Your task to perform on an android device: turn on airplane mode Image 0: 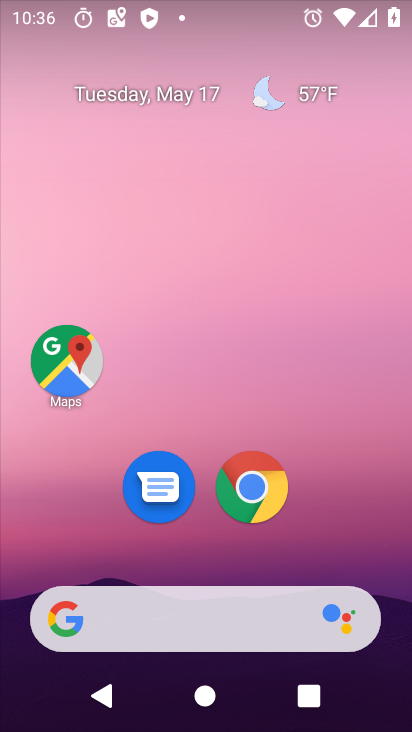
Step 0: drag from (226, 726) to (226, 287)
Your task to perform on an android device: turn on airplane mode Image 1: 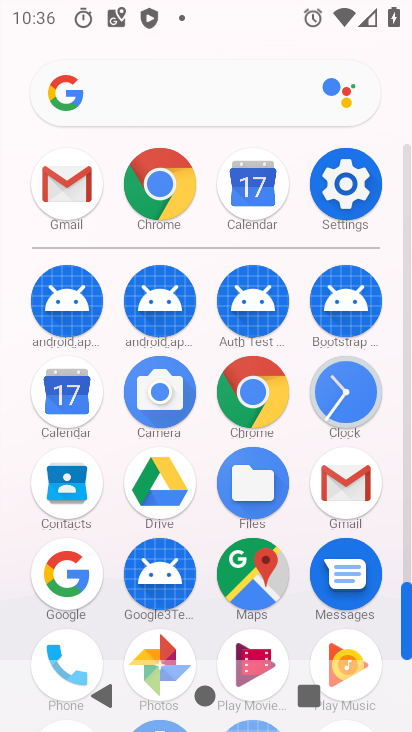
Step 1: click (348, 193)
Your task to perform on an android device: turn on airplane mode Image 2: 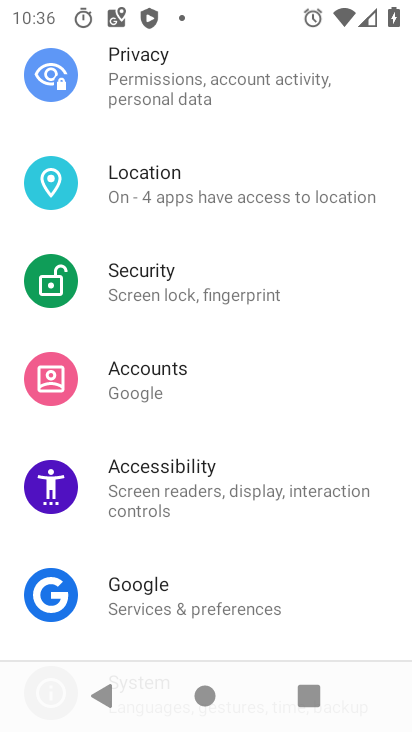
Step 2: drag from (251, 152) to (249, 537)
Your task to perform on an android device: turn on airplane mode Image 3: 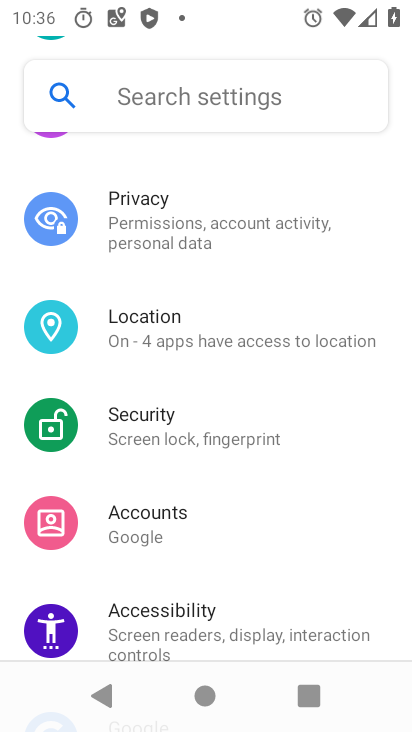
Step 3: drag from (228, 178) to (230, 582)
Your task to perform on an android device: turn on airplane mode Image 4: 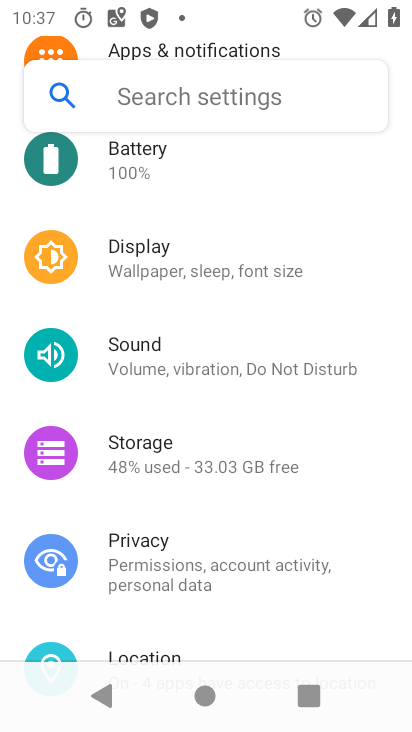
Step 4: drag from (243, 175) to (255, 492)
Your task to perform on an android device: turn on airplane mode Image 5: 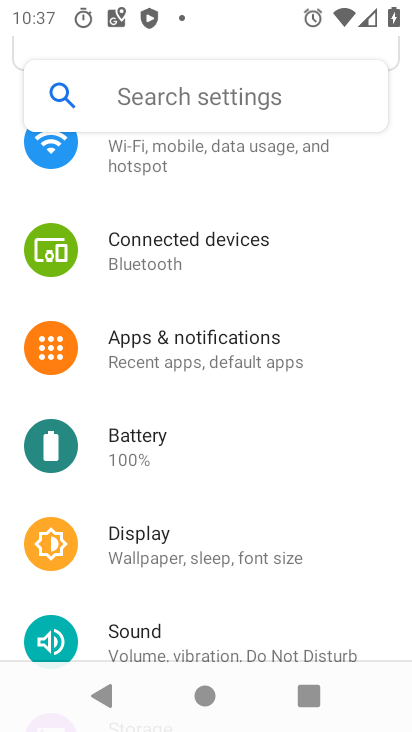
Step 5: drag from (250, 191) to (257, 540)
Your task to perform on an android device: turn on airplane mode Image 6: 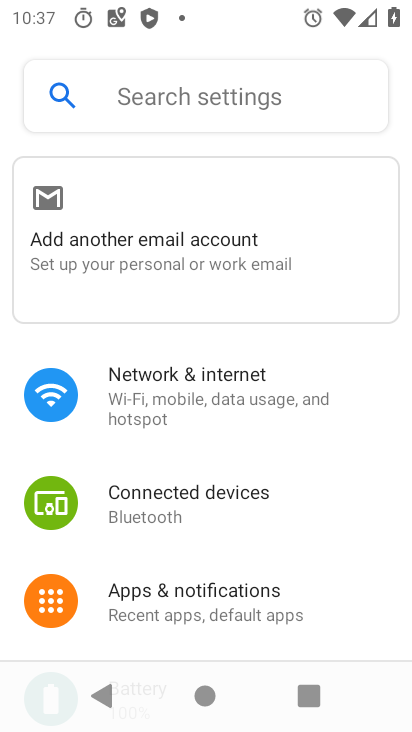
Step 6: click (214, 390)
Your task to perform on an android device: turn on airplane mode Image 7: 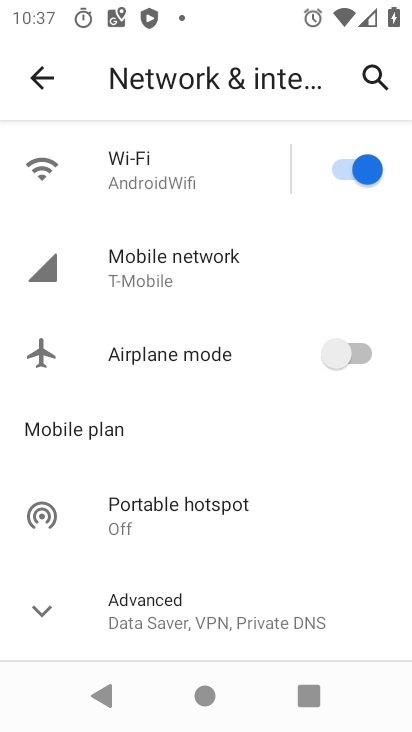
Step 7: click (356, 356)
Your task to perform on an android device: turn on airplane mode Image 8: 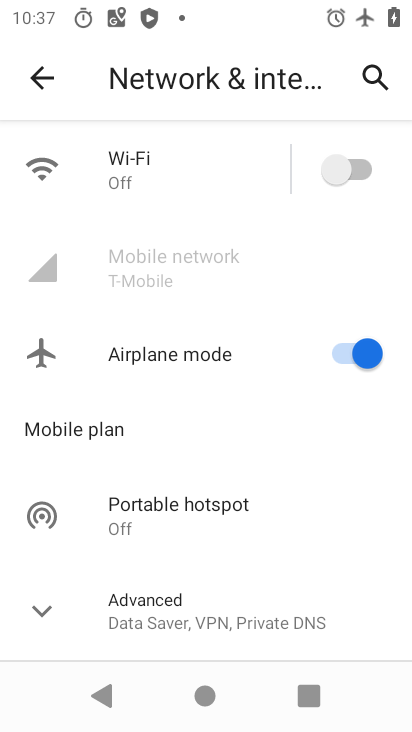
Step 8: task complete